Your task to perform on an android device: open chrome and create a bookmark for the current page Image 0: 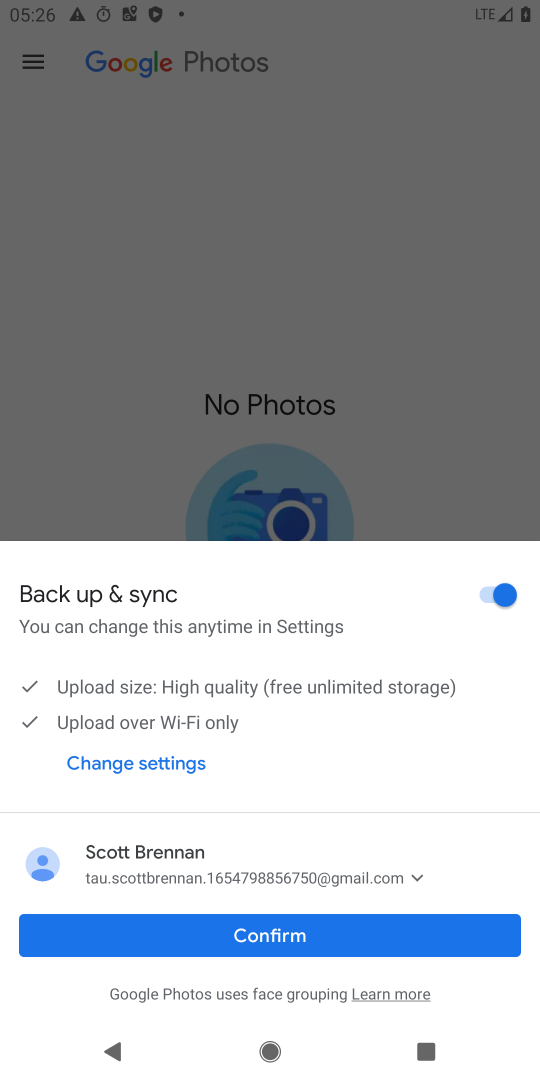
Step 0: press home button
Your task to perform on an android device: open chrome and create a bookmark for the current page Image 1: 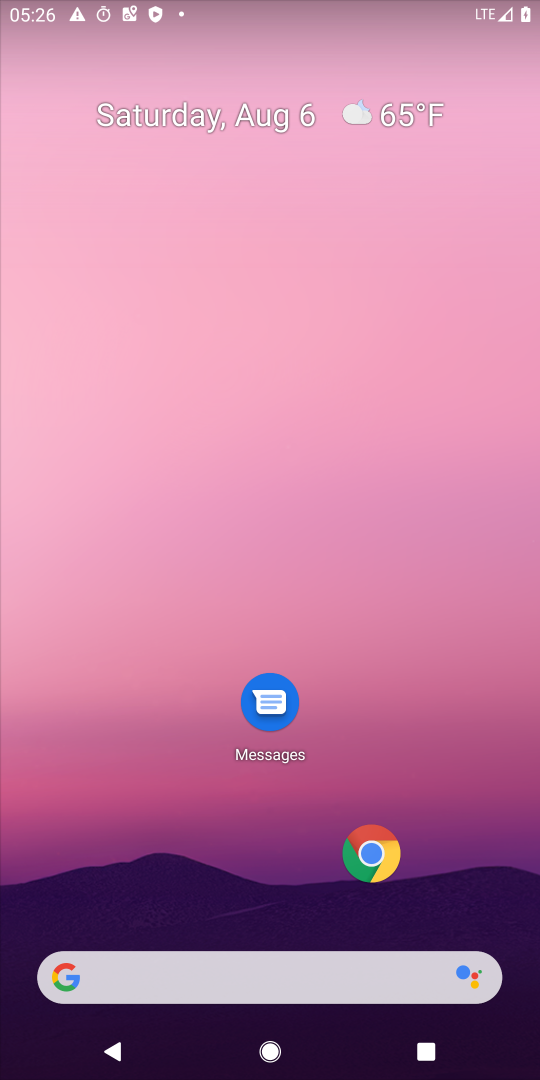
Step 1: drag from (173, 669) to (161, 96)
Your task to perform on an android device: open chrome and create a bookmark for the current page Image 2: 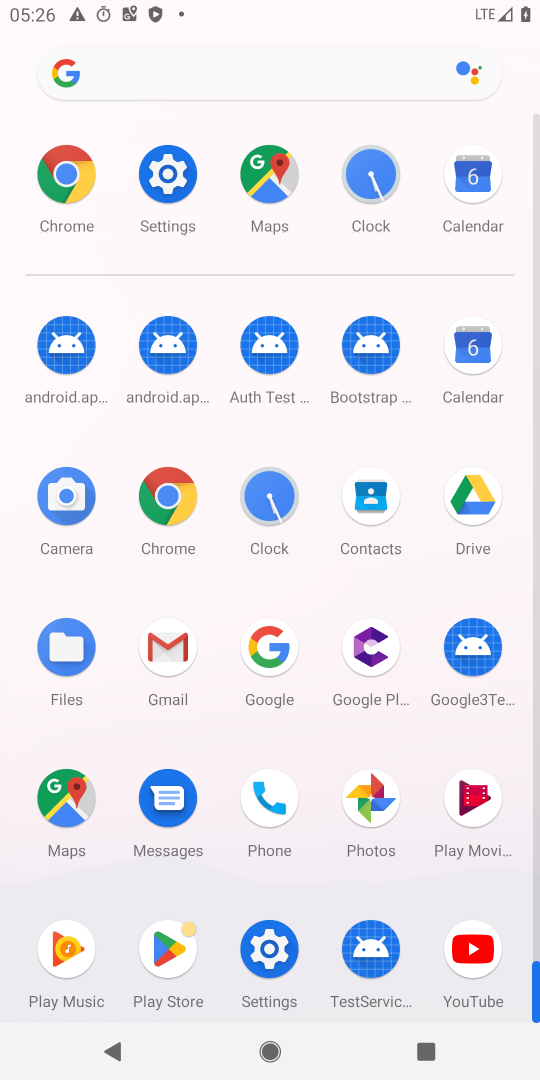
Step 2: click (162, 497)
Your task to perform on an android device: open chrome and create a bookmark for the current page Image 3: 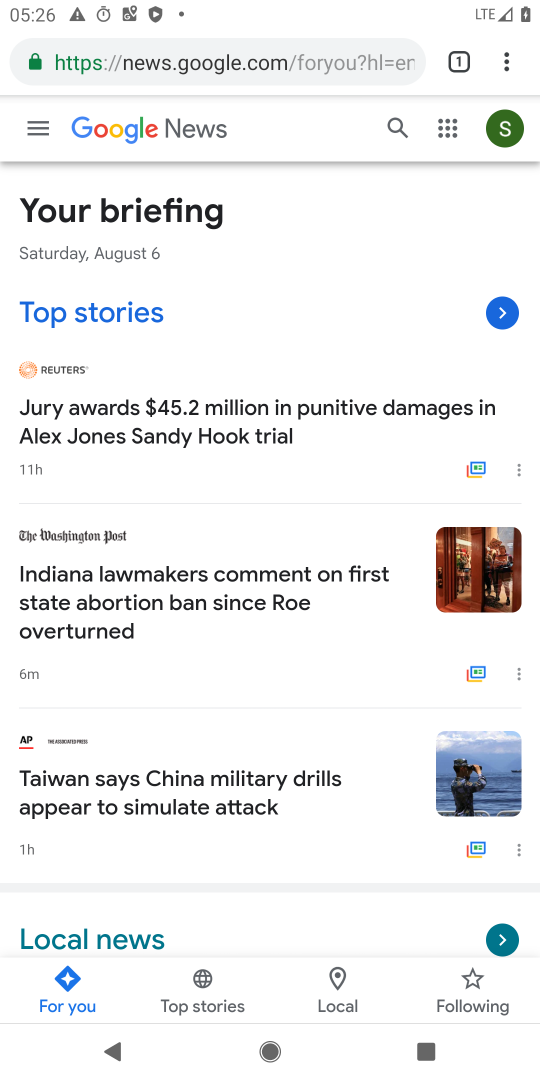
Step 3: click (501, 65)
Your task to perform on an android device: open chrome and create a bookmark for the current page Image 4: 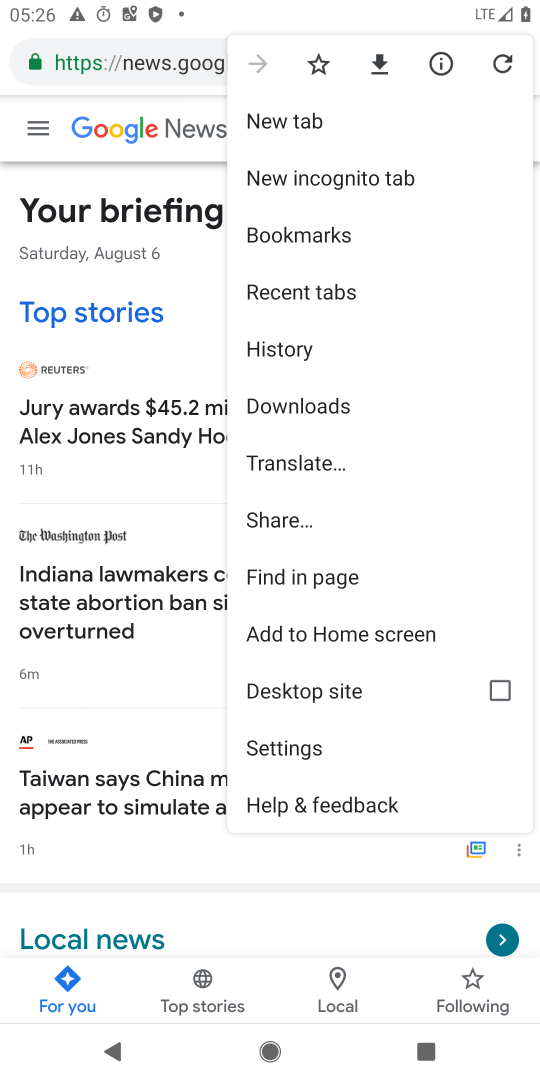
Step 4: click (319, 60)
Your task to perform on an android device: open chrome and create a bookmark for the current page Image 5: 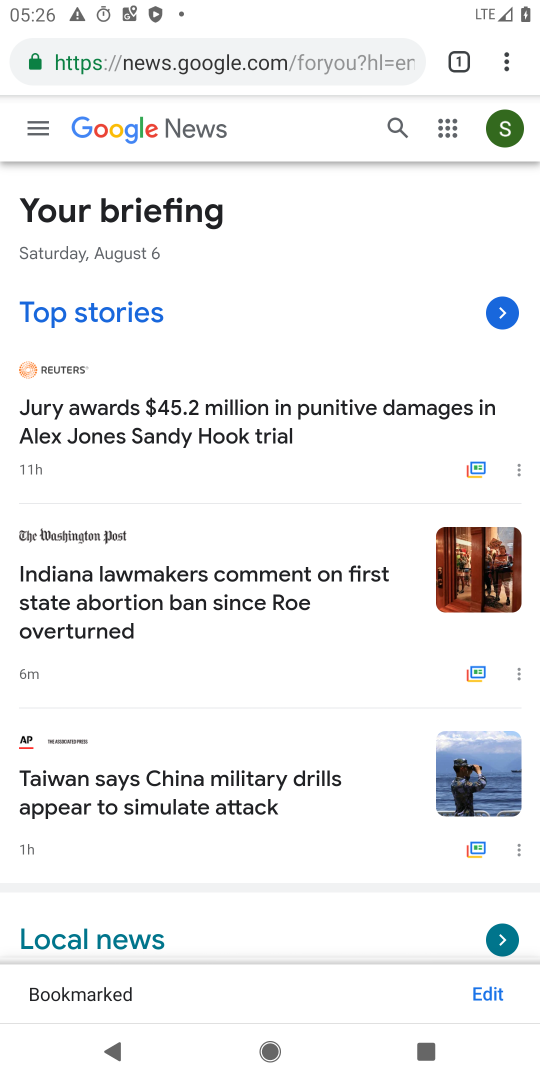
Step 5: task complete